Your task to perform on an android device: Turn off the flashlight Image 0: 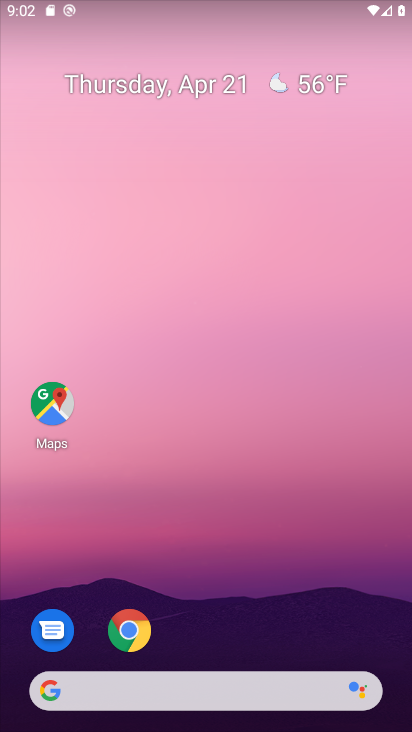
Step 0: drag from (224, 523) to (366, 3)
Your task to perform on an android device: Turn off the flashlight Image 1: 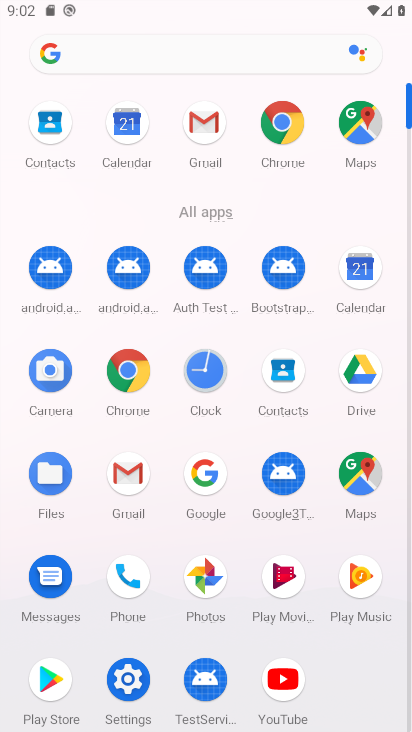
Step 1: click (130, 680)
Your task to perform on an android device: Turn off the flashlight Image 2: 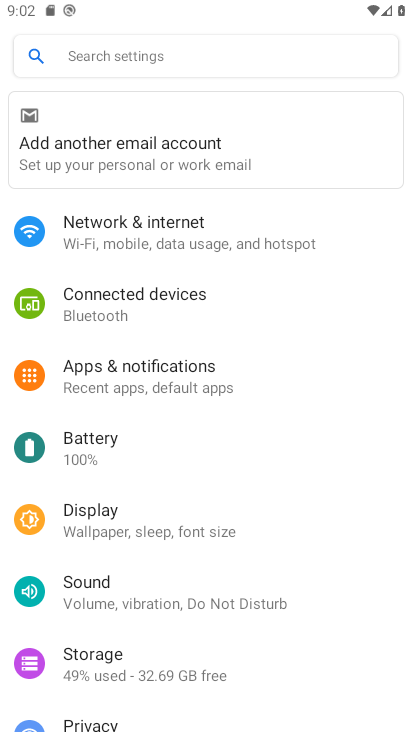
Step 2: click (172, 48)
Your task to perform on an android device: Turn off the flashlight Image 3: 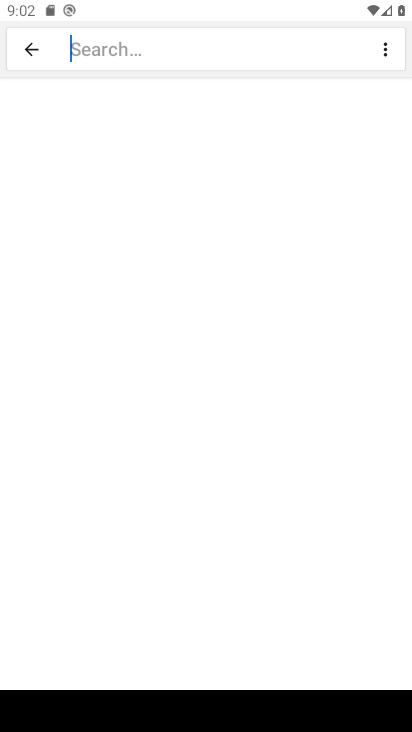
Step 3: type "flashlight"
Your task to perform on an android device: Turn off the flashlight Image 4: 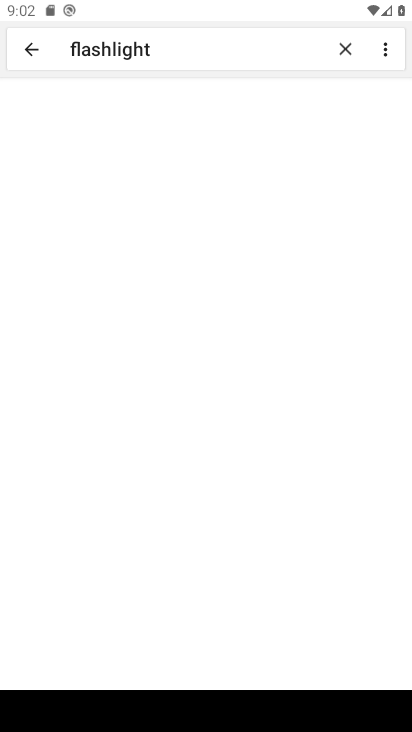
Step 4: click (144, 131)
Your task to perform on an android device: Turn off the flashlight Image 5: 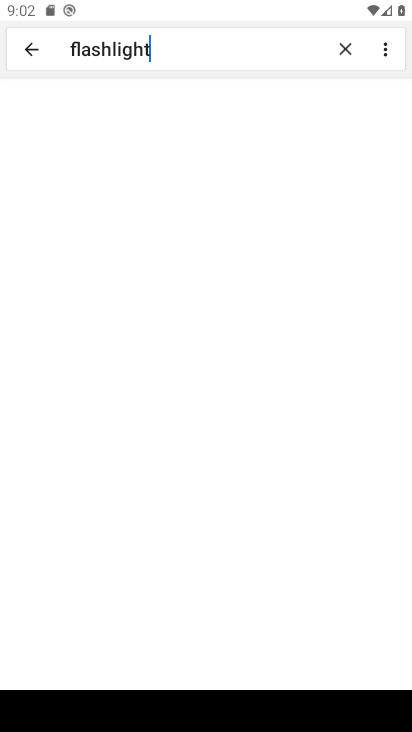
Step 5: click (144, 132)
Your task to perform on an android device: Turn off the flashlight Image 6: 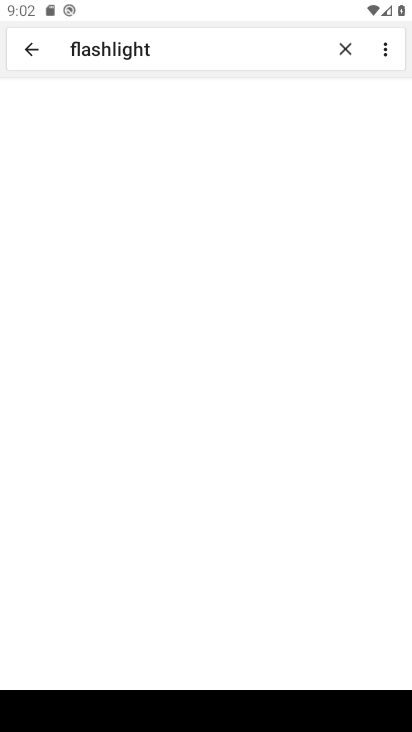
Step 6: click (144, 132)
Your task to perform on an android device: Turn off the flashlight Image 7: 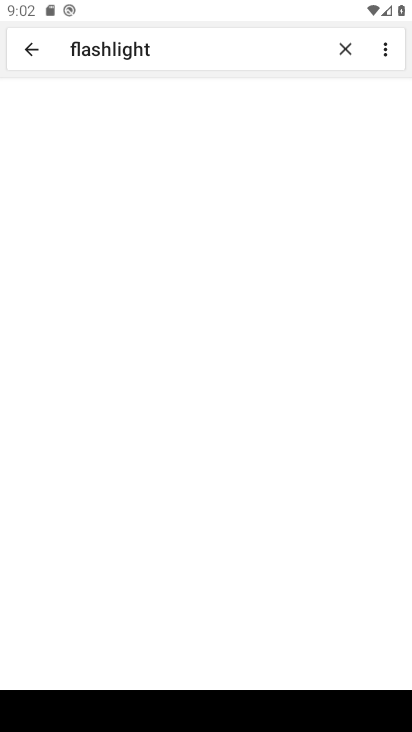
Step 7: task complete